Your task to perform on an android device: open a new tab in the chrome app Image 0: 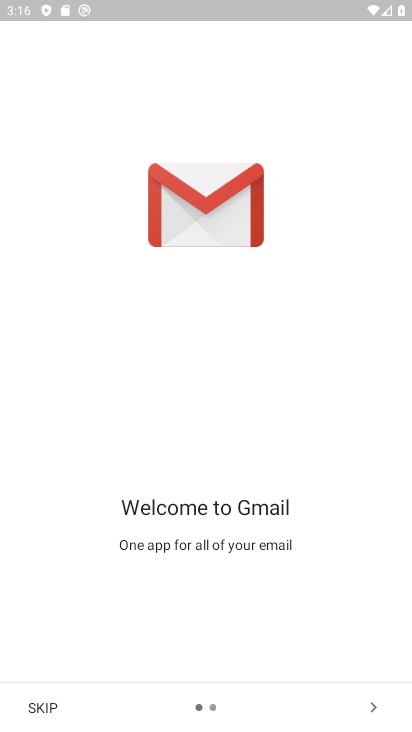
Step 0: press home button
Your task to perform on an android device: open a new tab in the chrome app Image 1: 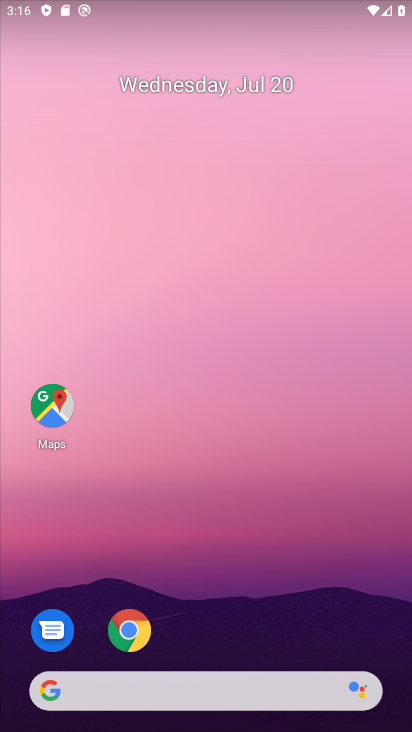
Step 1: drag from (226, 654) to (171, 0)
Your task to perform on an android device: open a new tab in the chrome app Image 2: 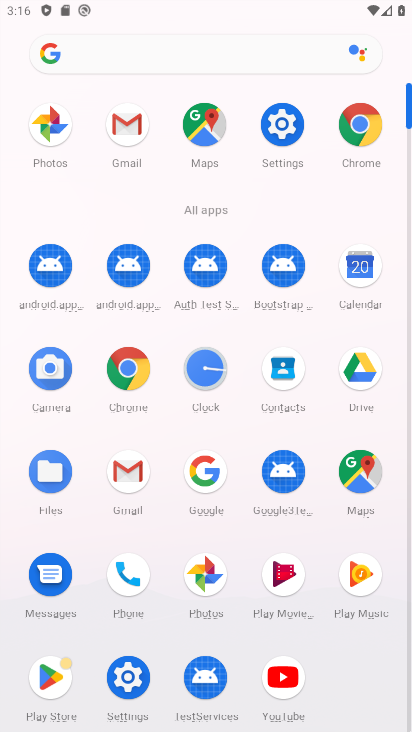
Step 2: click (359, 131)
Your task to perform on an android device: open a new tab in the chrome app Image 3: 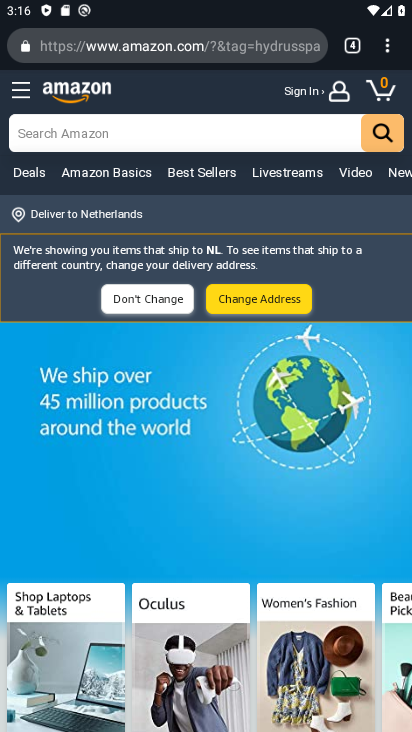
Step 3: click (344, 48)
Your task to perform on an android device: open a new tab in the chrome app Image 4: 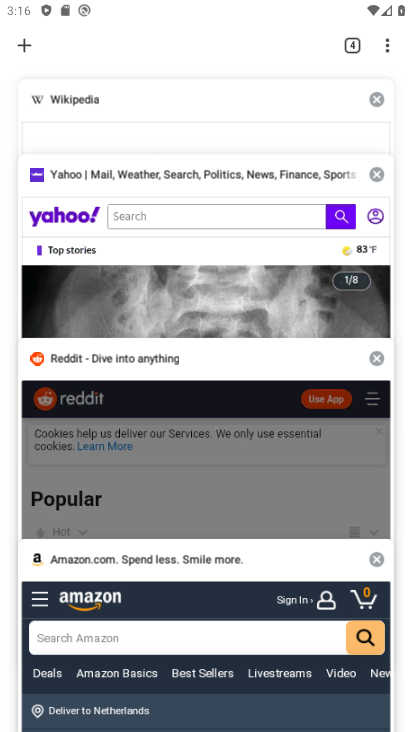
Step 4: click (35, 44)
Your task to perform on an android device: open a new tab in the chrome app Image 5: 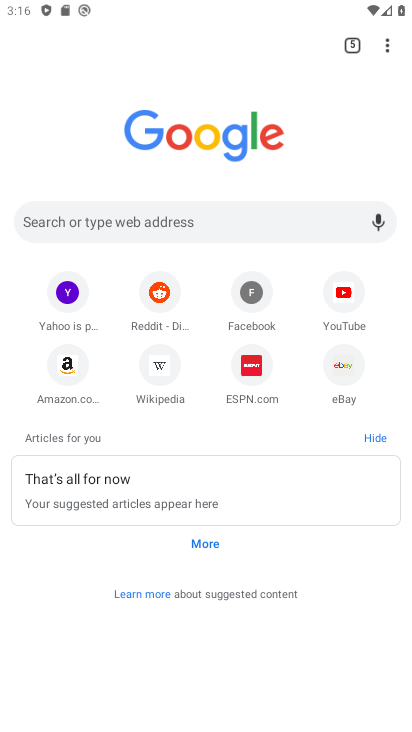
Step 5: task complete